Your task to perform on an android device: install app "LiveIn - Share Your Moment" Image 0: 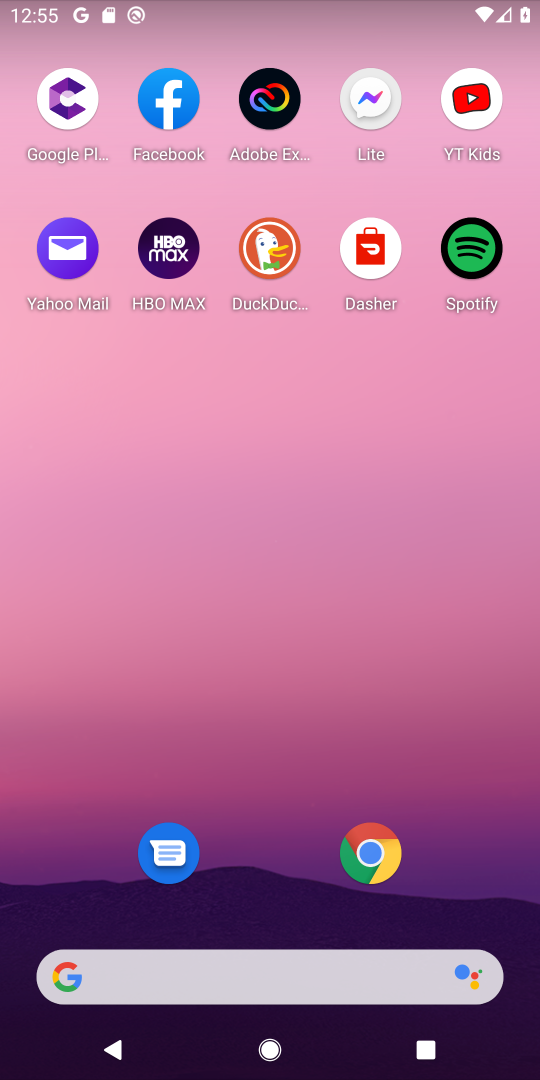
Step 0: drag from (527, 968) to (455, 308)
Your task to perform on an android device: install app "LiveIn - Share Your Moment" Image 1: 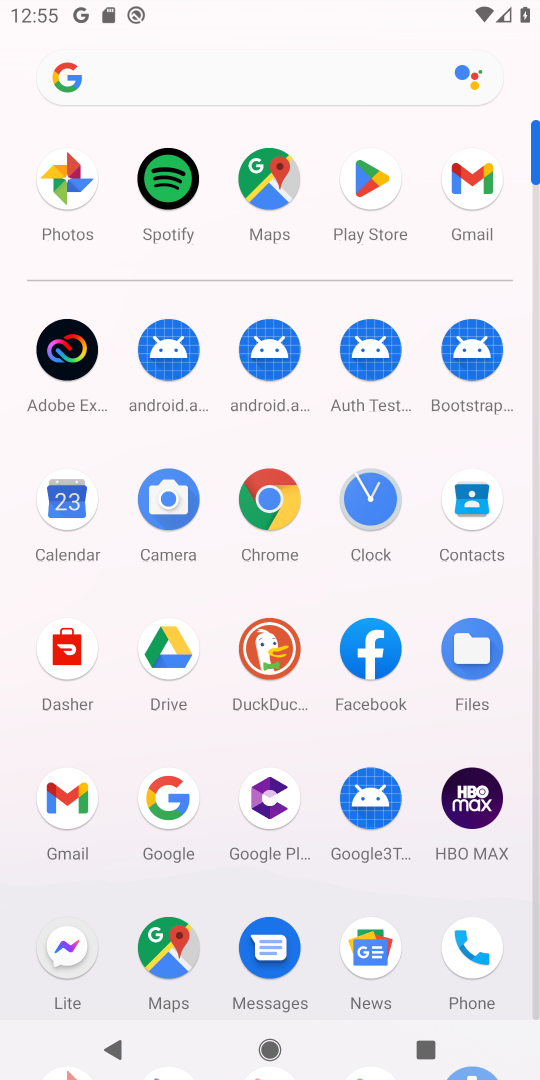
Step 1: drag from (410, 896) to (421, 456)
Your task to perform on an android device: install app "LiveIn - Share Your Moment" Image 2: 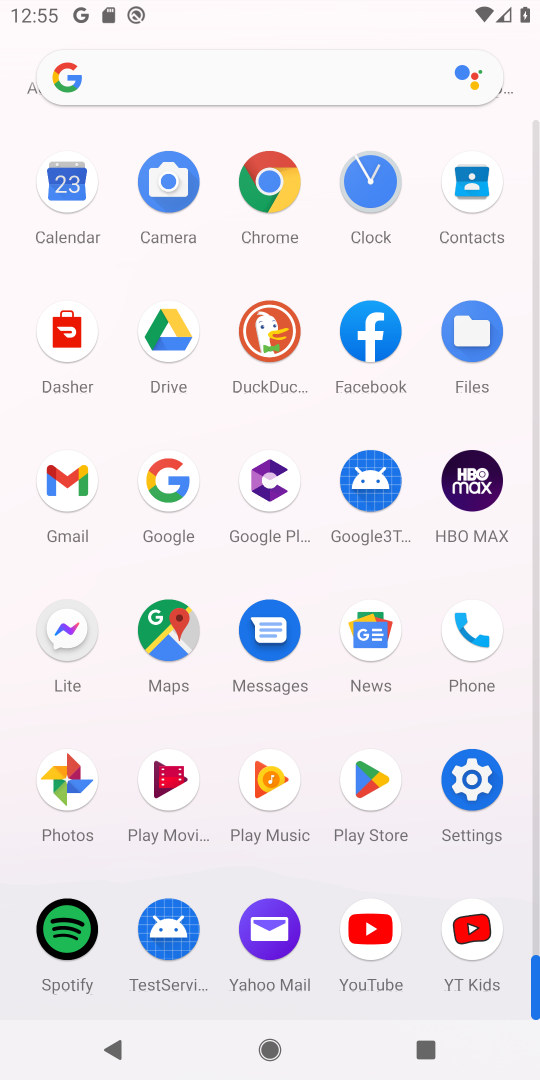
Step 2: click (372, 779)
Your task to perform on an android device: install app "LiveIn - Share Your Moment" Image 3: 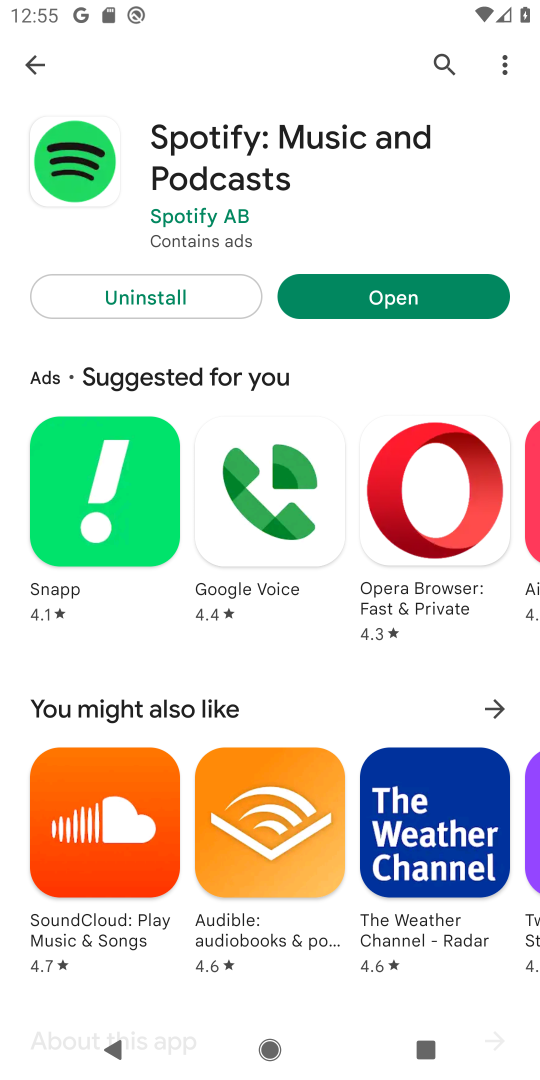
Step 3: click (442, 65)
Your task to perform on an android device: install app "LiveIn - Share Your Moment" Image 4: 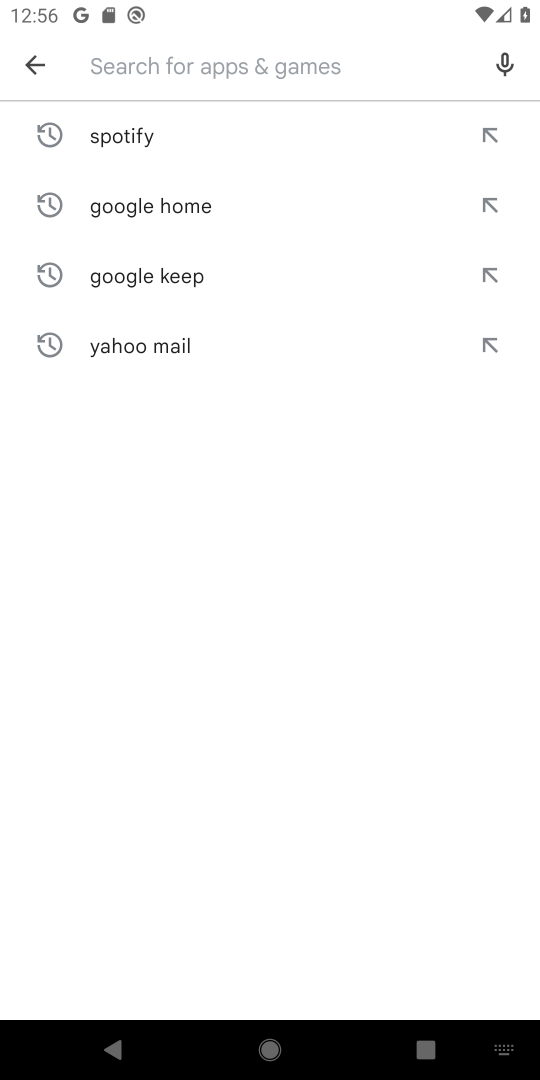
Step 4: type "LiveIn - Share Your Moment"
Your task to perform on an android device: install app "LiveIn - Share Your Moment" Image 5: 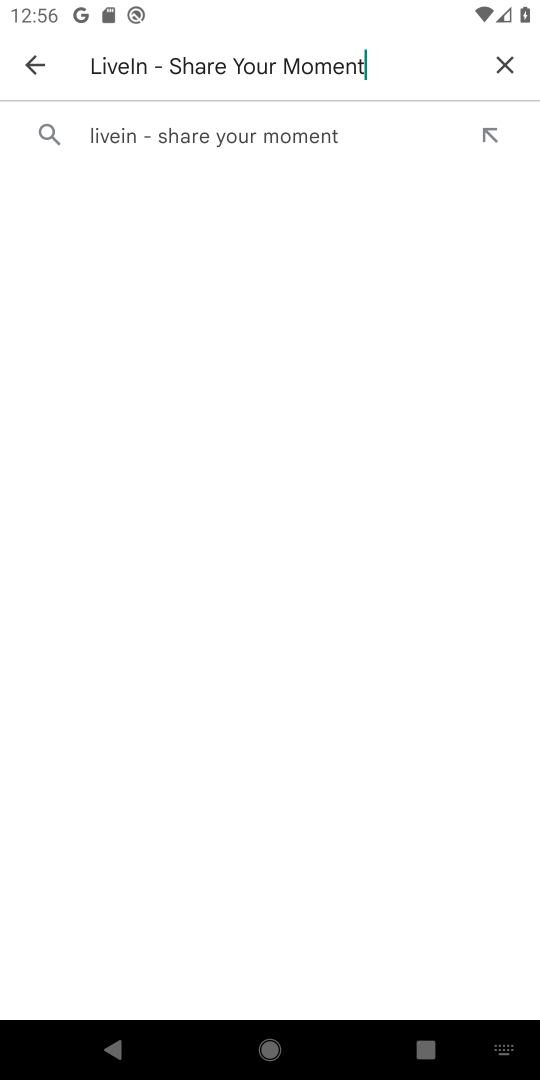
Step 5: click (174, 137)
Your task to perform on an android device: install app "LiveIn - Share Your Moment" Image 6: 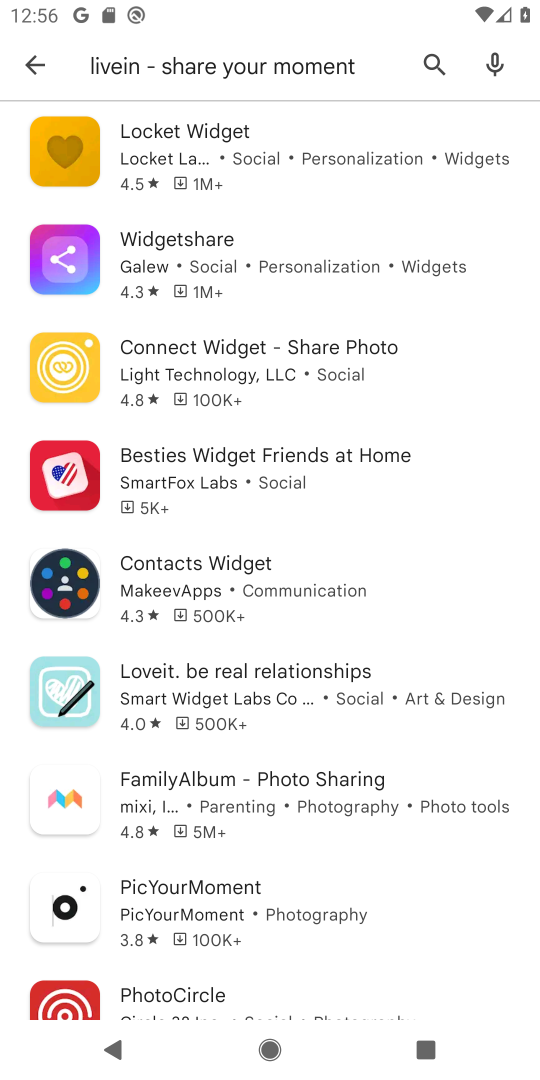
Step 6: task complete